Your task to perform on an android device: Open Google Chrome and open the bookmarks view Image 0: 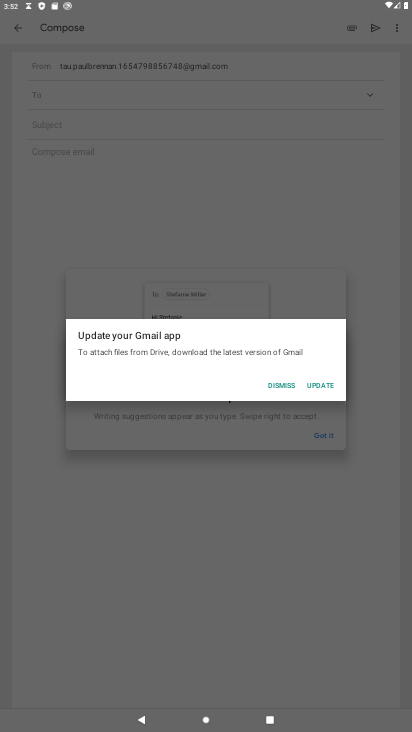
Step 0: press home button
Your task to perform on an android device: Open Google Chrome and open the bookmarks view Image 1: 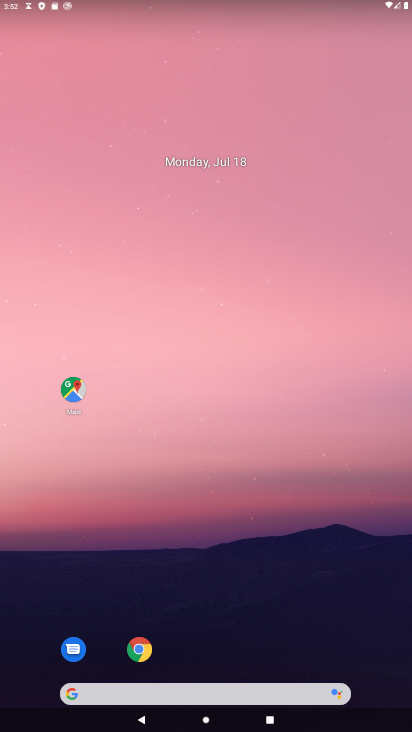
Step 1: click (141, 645)
Your task to perform on an android device: Open Google Chrome and open the bookmarks view Image 2: 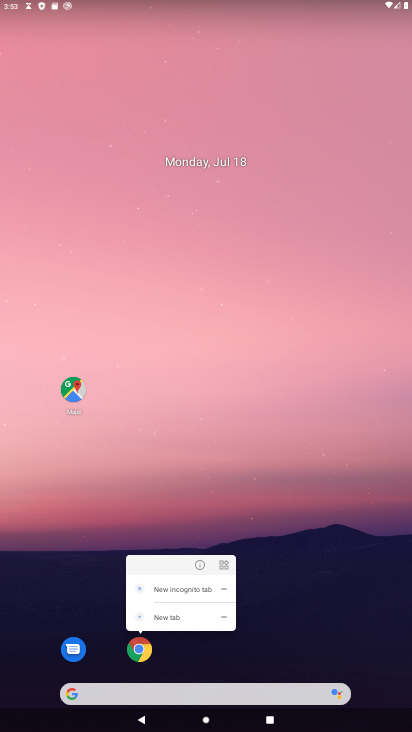
Step 2: click (138, 641)
Your task to perform on an android device: Open Google Chrome and open the bookmarks view Image 3: 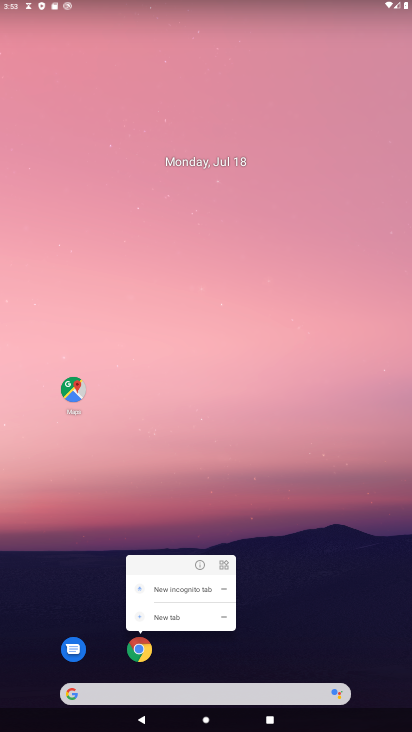
Step 3: click (133, 645)
Your task to perform on an android device: Open Google Chrome and open the bookmarks view Image 4: 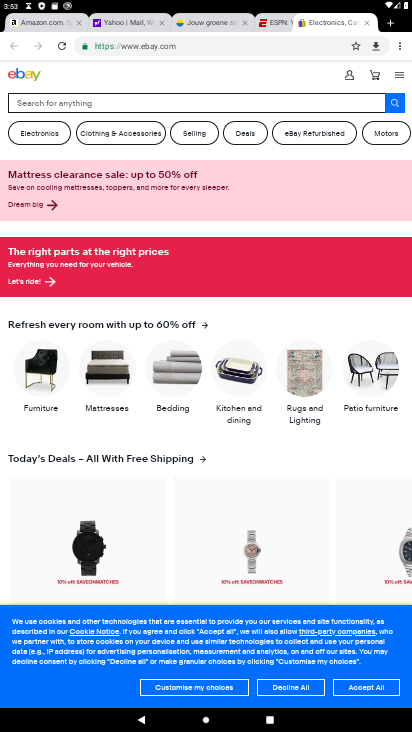
Step 4: task complete